Your task to perform on an android device: When is my next meeting? Image 0: 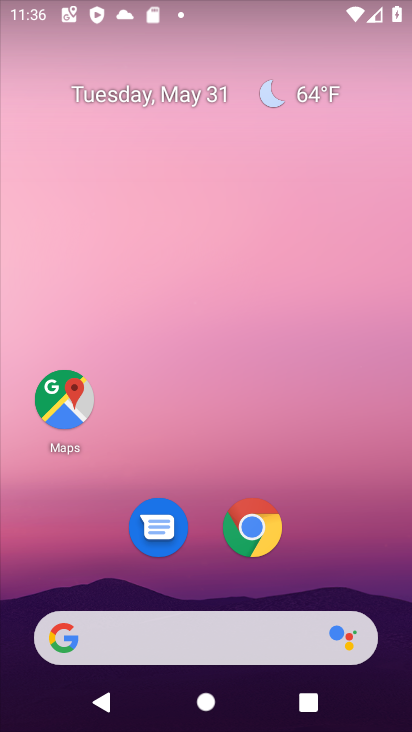
Step 0: drag from (253, 641) to (195, 29)
Your task to perform on an android device: When is my next meeting? Image 1: 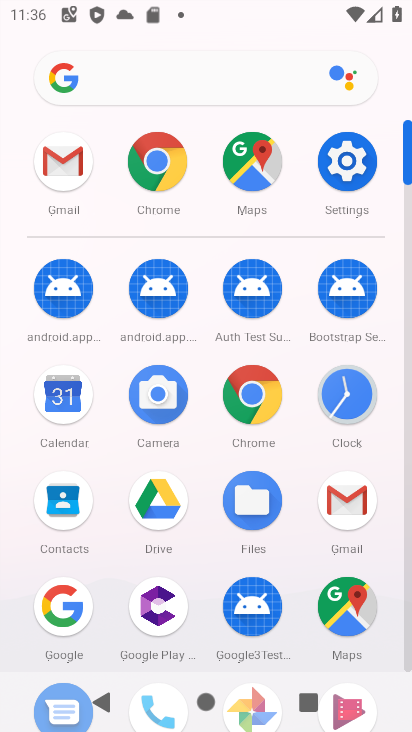
Step 1: click (63, 395)
Your task to perform on an android device: When is my next meeting? Image 2: 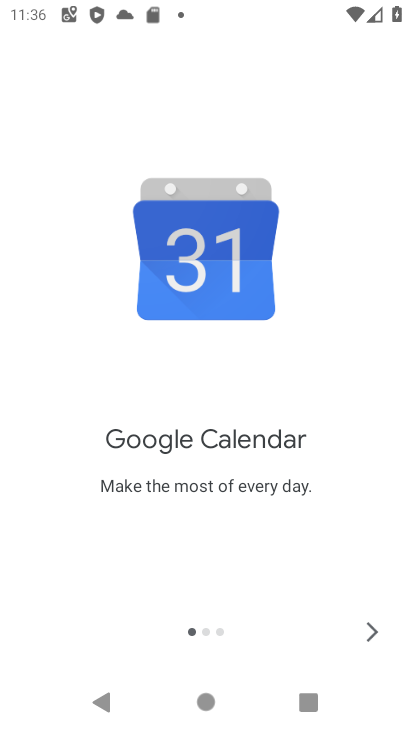
Step 2: click (388, 627)
Your task to perform on an android device: When is my next meeting? Image 3: 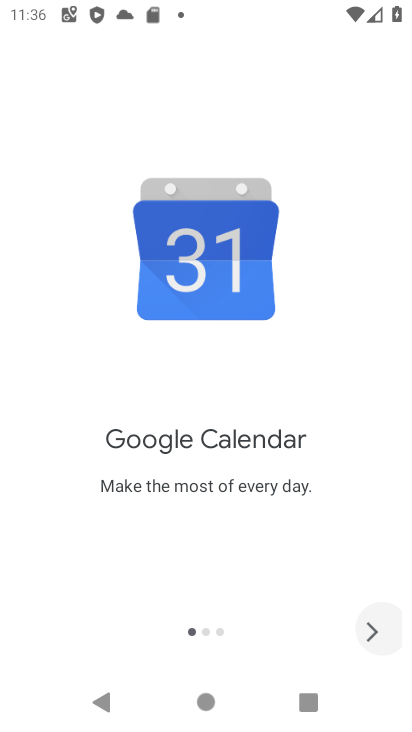
Step 3: click (388, 627)
Your task to perform on an android device: When is my next meeting? Image 4: 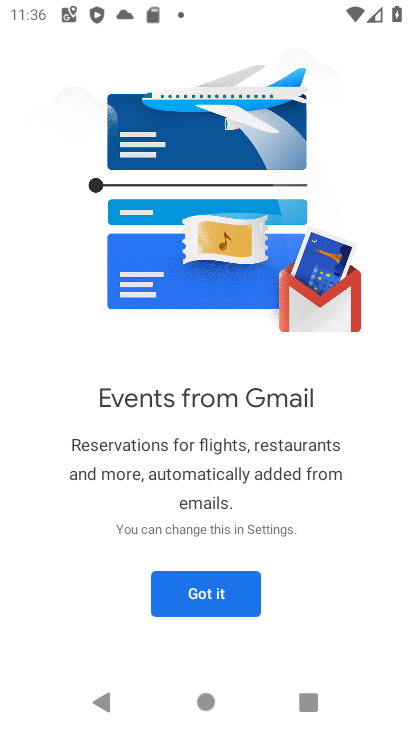
Step 4: click (377, 627)
Your task to perform on an android device: When is my next meeting? Image 5: 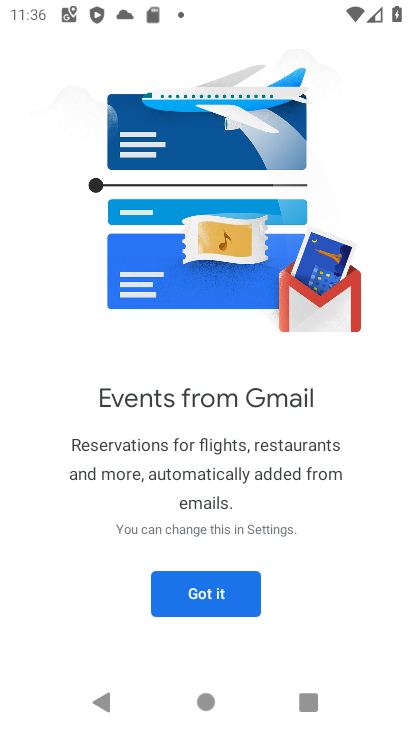
Step 5: click (193, 596)
Your task to perform on an android device: When is my next meeting? Image 6: 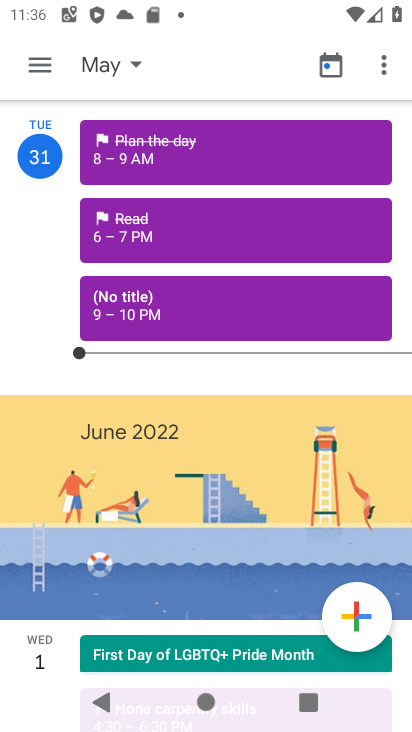
Step 6: task complete